Your task to perform on an android device: Go to privacy settings Image 0: 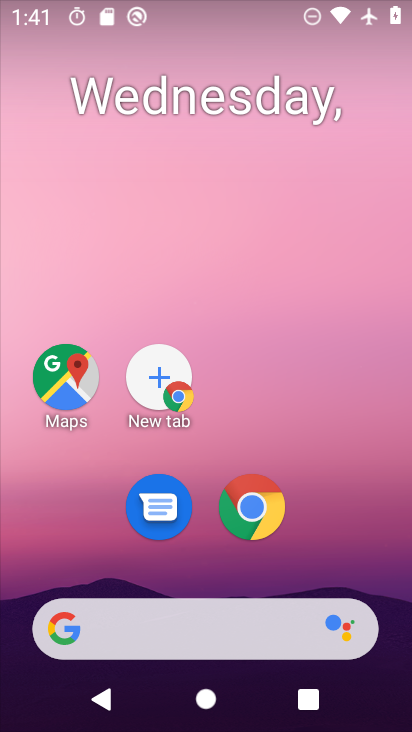
Step 0: drag from (363, 449) to (410, 197)
Your task to perform on an android device: Go to privacy settings Image 1: 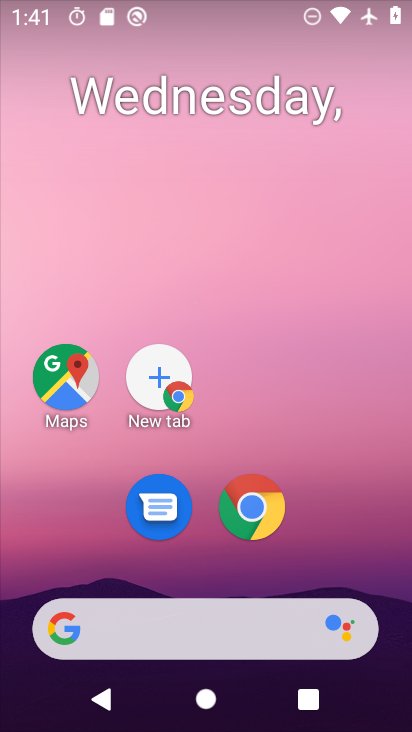
Step 1: drag from (326, 428) to (283, 113)
Your task to perform on an android device: Go to privacy settings Image 2: 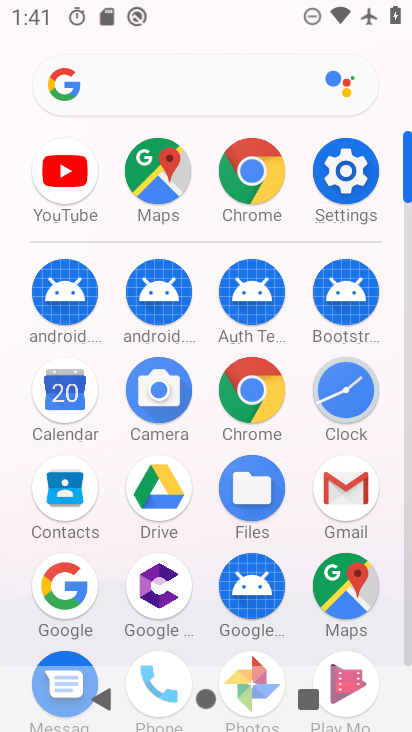
Step 2: click (334, 164)
Your task to perform on an android device: Go to privacy settings Image 3: 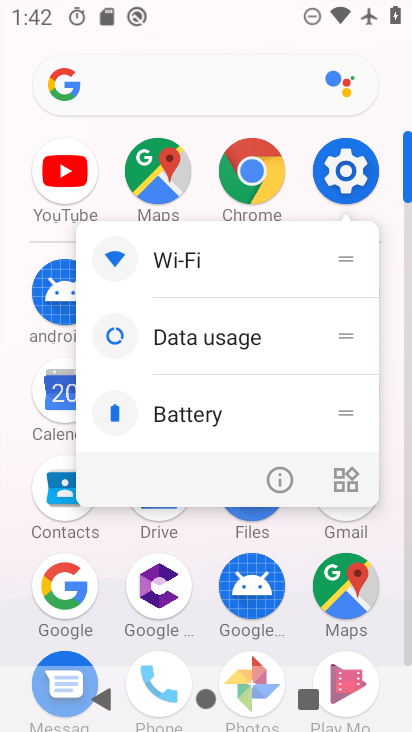
Step 3: click (357, 186)
Your task to perform on an android device: Go to privacy settings Image 4: 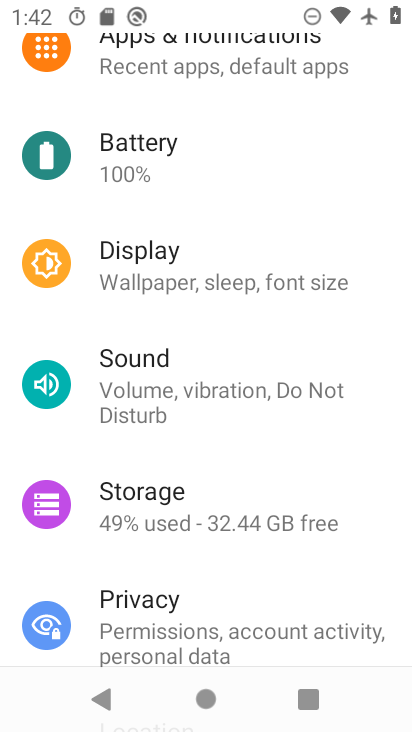
Step 4: drag from (280, 577) to (193, 184)
Your task to perform on an android device: Go to privacy settings Image 5: 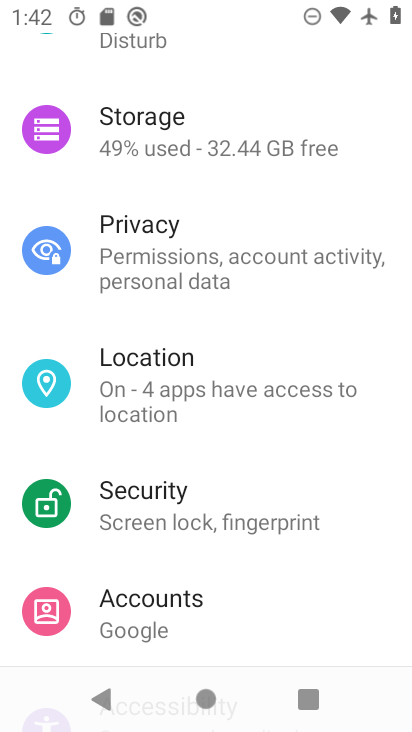
Step 5: click (153, 235)
Your task to perform on an android device: Go to privacy settings Image 6: 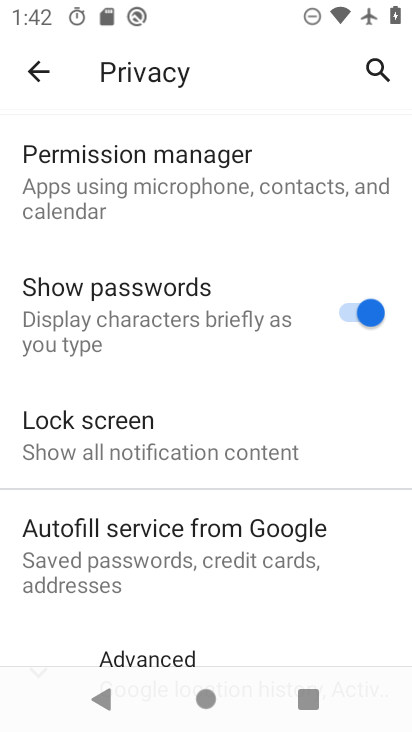
Step 6: task complete